Your task to perform on an android device: toggle wifi Image 0: 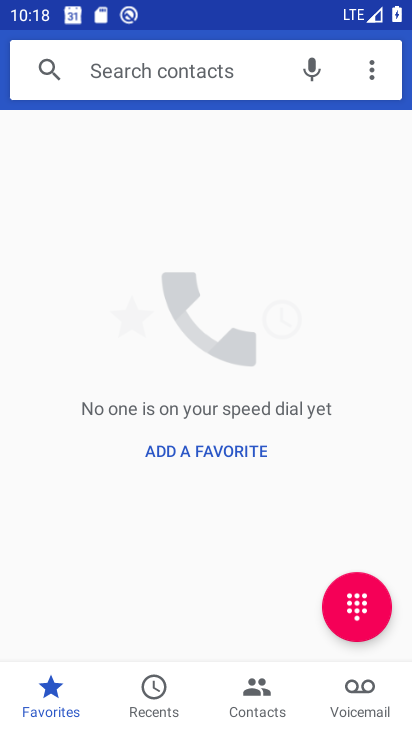
Step 0: press home button
Your task to perform on an android device: toggle wifi Image 1: 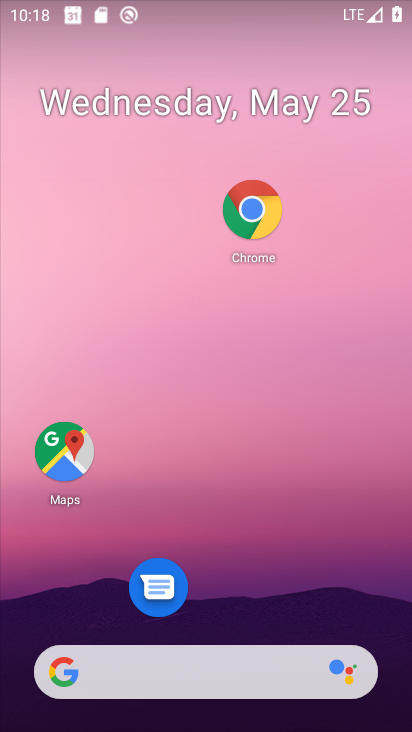
Step 1: drag from (266, 578) to (332, 152)
Your task to perform on an android device: toggle wifi Image 2: 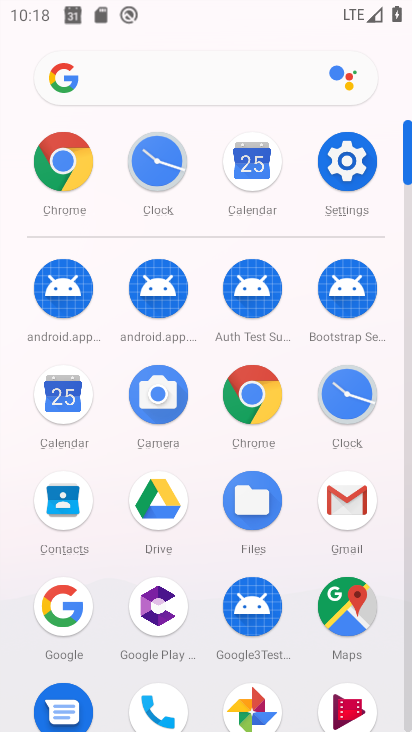
Step 2: click (336, 162)
Your task to perform on an android device: toggle wifi Image 3: 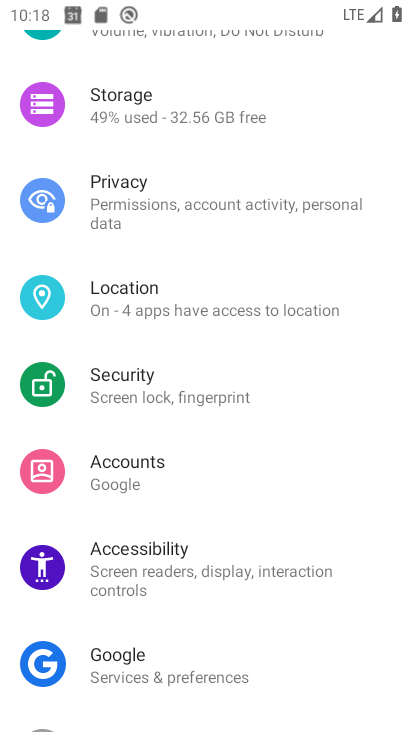
Step 3: drag from (282, 192) to (221, 725)
Your task to perform on an android device: toggle wifi Image 4: 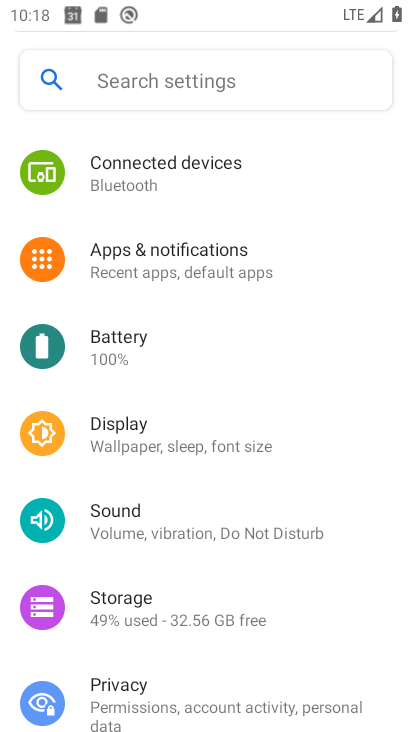
Step 4: drag from (220, 302) to (191, 668)
Your task to perform on an android device: toggle wifi Image 5: 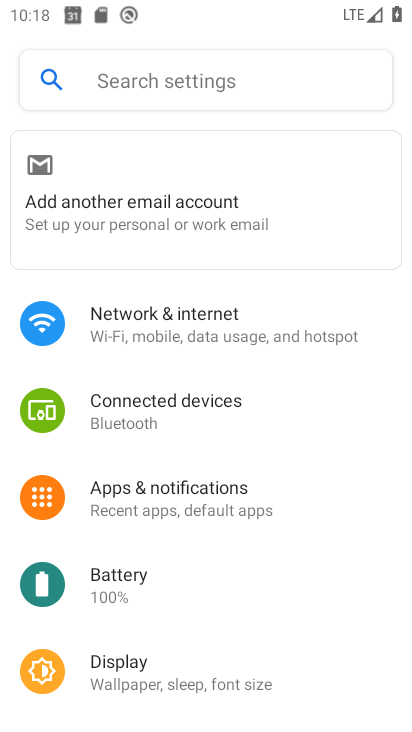
Step 5: click (231, 340)
Your task to perform on an android device: toggle wifi Image 6: 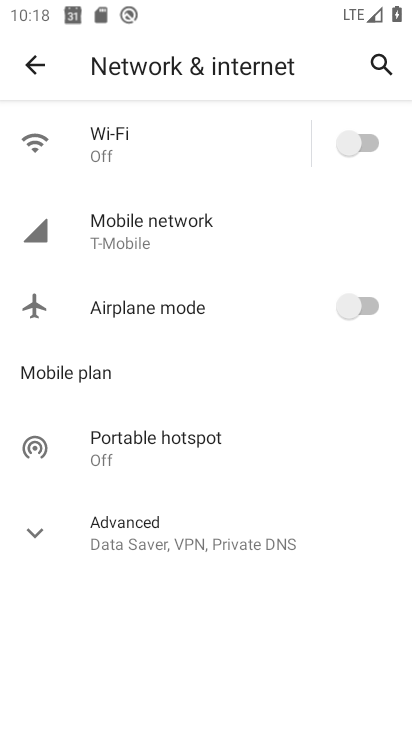
Step 6: click (352, 133)
Your task to perform on an android device: toggle wifi Image 7: 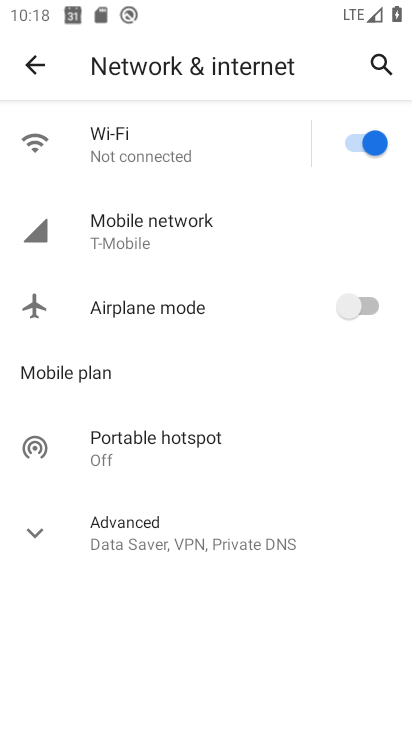
Step 7: task complete